Your task to perform on an android device: Open CNN.com Image 0: 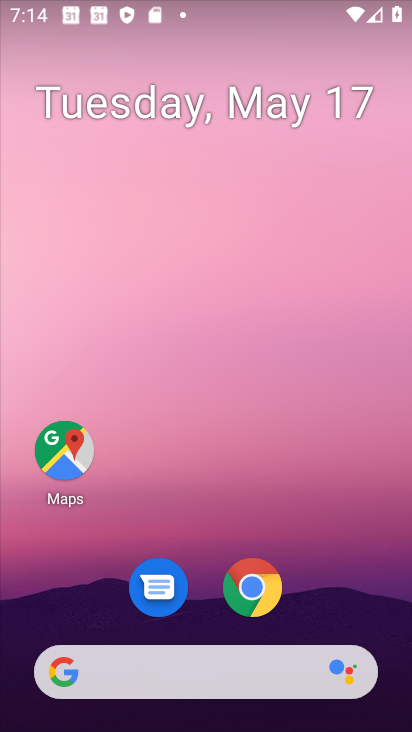
Step 0: press home button
Your task to perform on an android device: Open CNN.com Image 1: 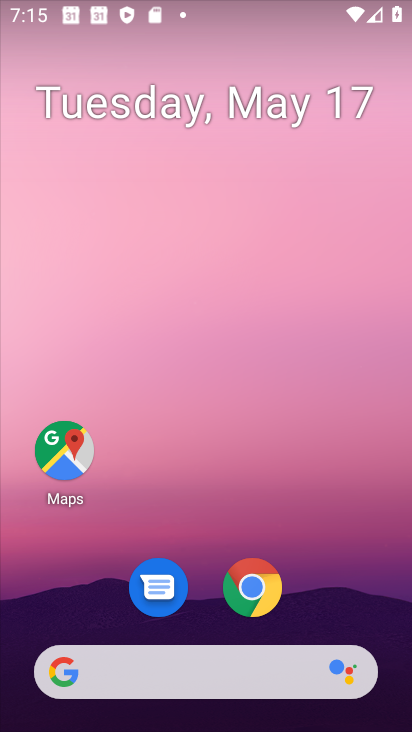
Step 1: drag from (148, 661) to (258, 265)
Your task to perform on an android device: Open CNN.com Image 2: 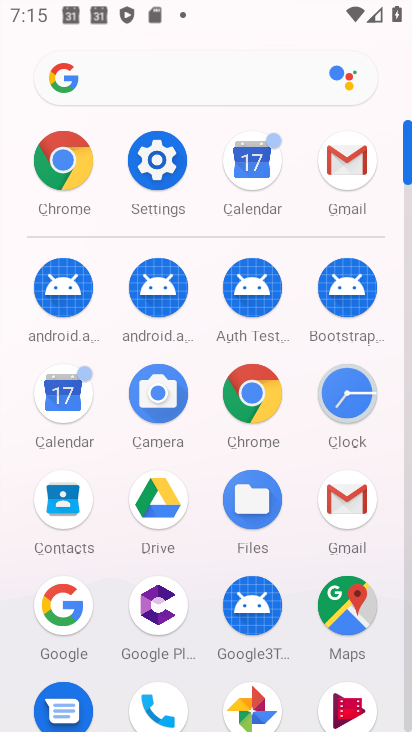
Step 2: click (67, 157)
Your task to perform on an android device: Open CNN.com Image 3: 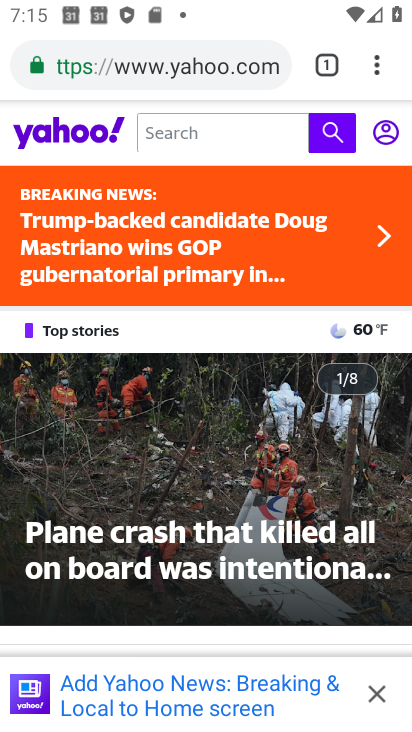
Step 3: click (218, 62)
Your task to perform on an android device: Open CNN.com Image 4: 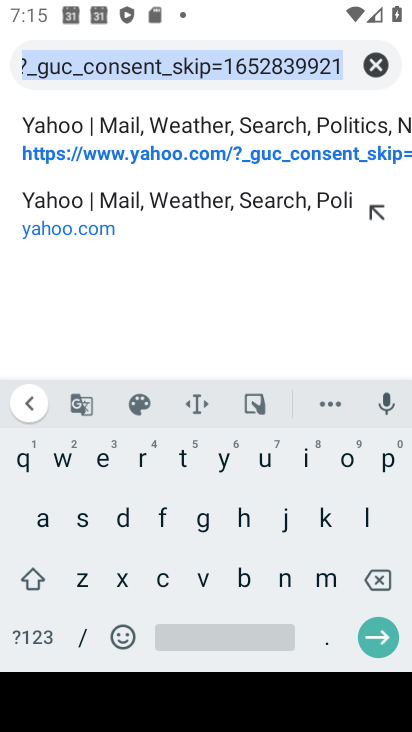
Step 4: click (161, 576)
Your task to perform on an android device: Open CNN.com Image 5: 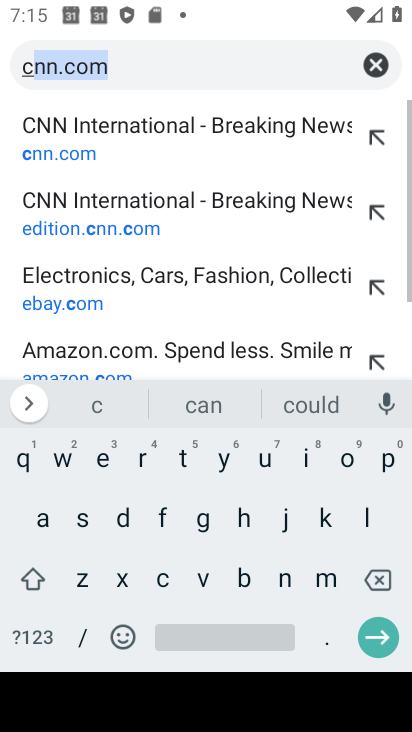
Step 5: click (164, 71)
Your task to perform on an android device: Open CNN.com Image 6: 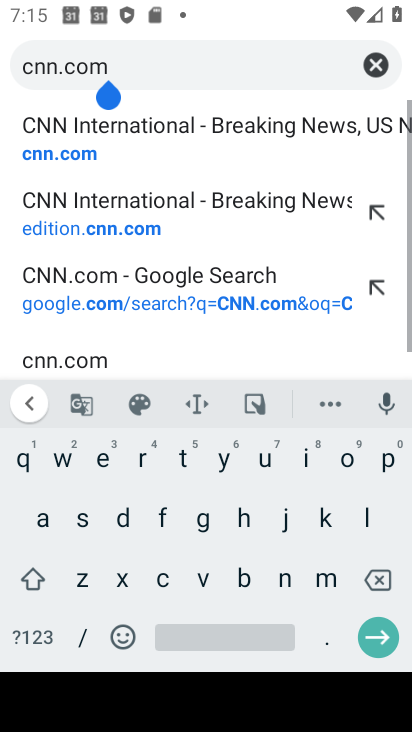
Step 6: click (382, 636)
Your task to perform on an android device: Open CNN.com Image 7: 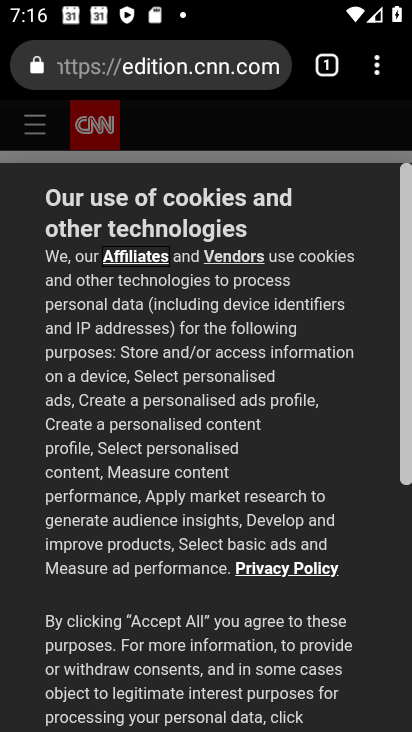
Step 7: drag from (224, 644) to (173, 267)
Your task to perform on an android device: Open CNN.com Image 8: 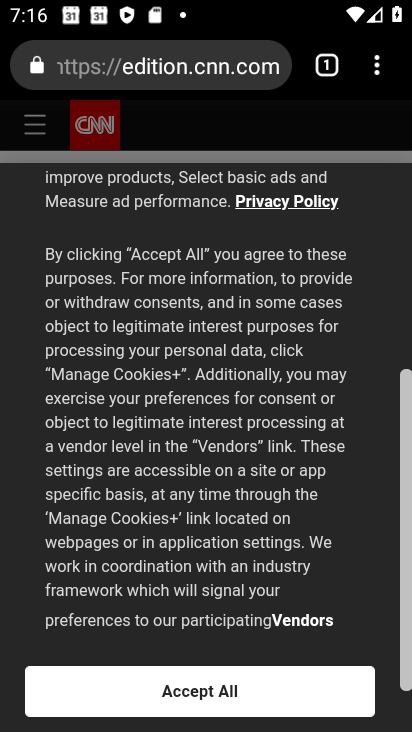
Step 8: drag from (182, 587) to (212, 390)
Your task to perform on an android device: Open CNN.com Image 9: 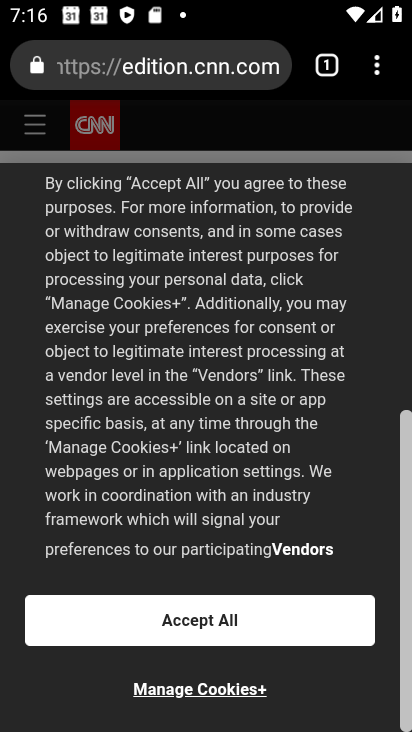
Step 9: click (188, 622)
Your task to perform on an android device: Open CNN.com Image 10: 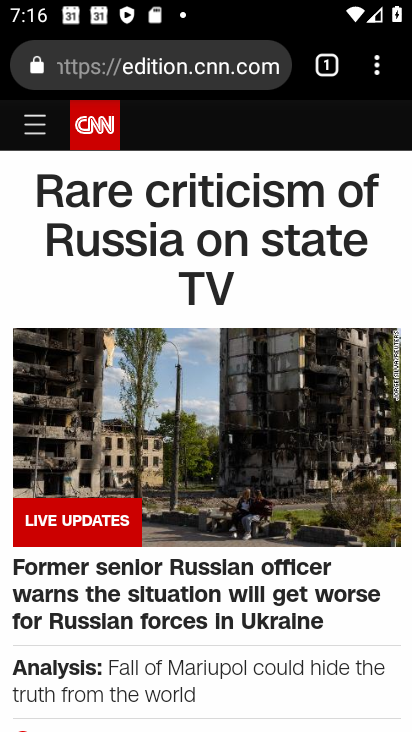
Step 10: task complete